Your task to perform on an android device: Go to display settings Image 0: 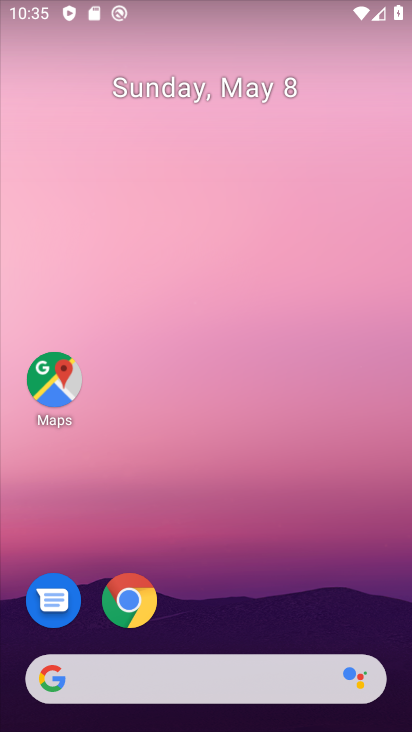
Step 0: drag from (149, 498) to (339, 147)
Your task to perform on an android device: Go to display settings Image 1: 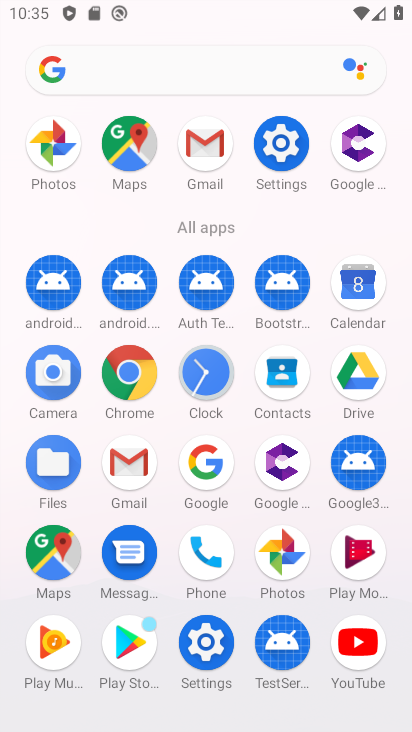
Step 1: click (291, 134)
Your task to perform on an android device: Go to display settings Image 2: 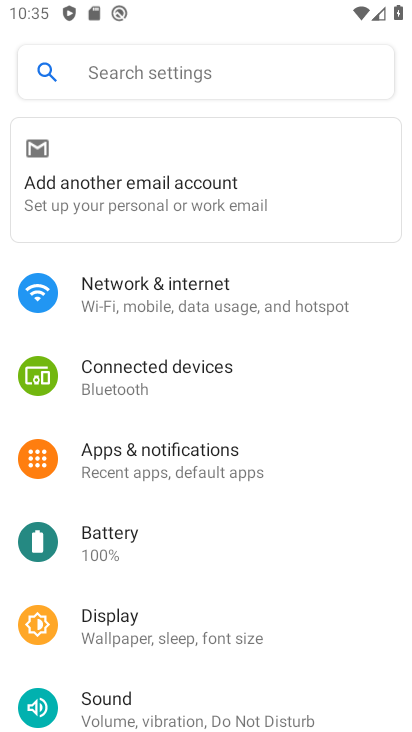
Step 2: drag from (175, 607) to (258, 309)
Your task to perform on an android device: Go to display settings Image 3: 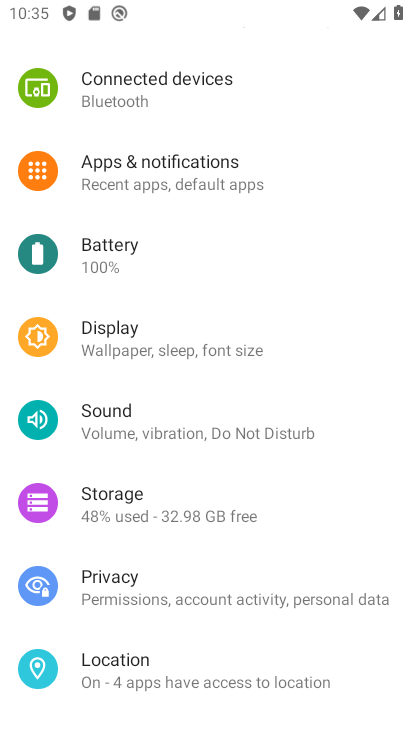
Step 3: click (127, 323)
Your task to perform on an android device: Go to display settings Image 4: 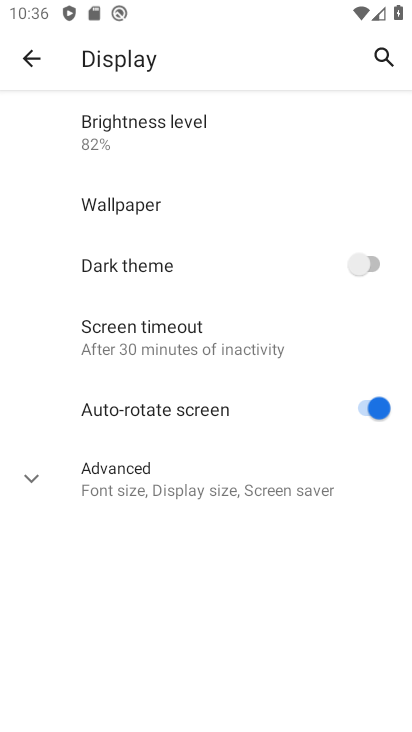
Step 4: task complete